Your task to perform on an android device: see tabs open on other devices in the chrome app Image 0: 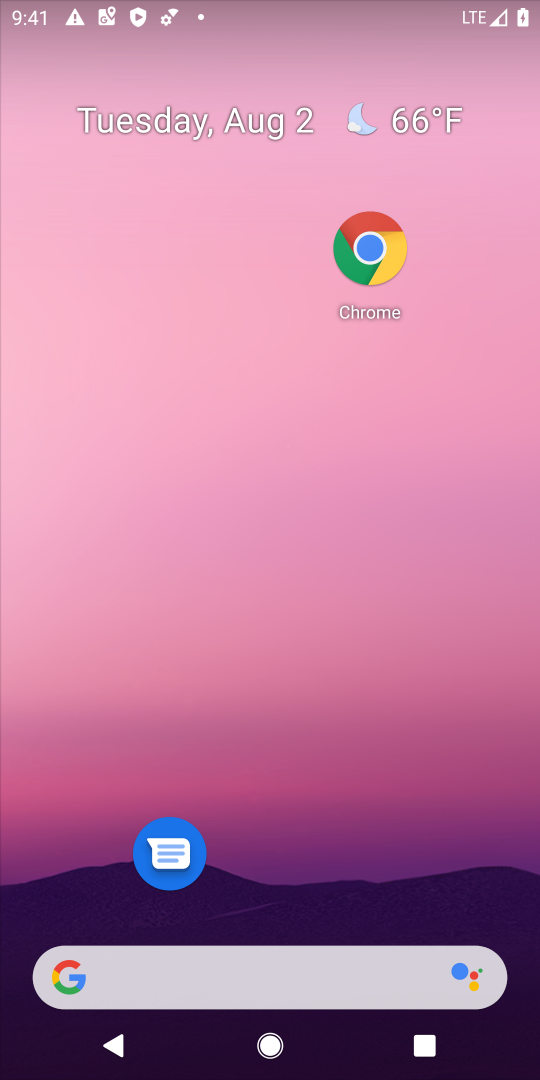
Step 0: drag from (276, 909) to (210, 50)
Your task to perform on an android device: see tabs open on other devices in the chrome app Image 1: 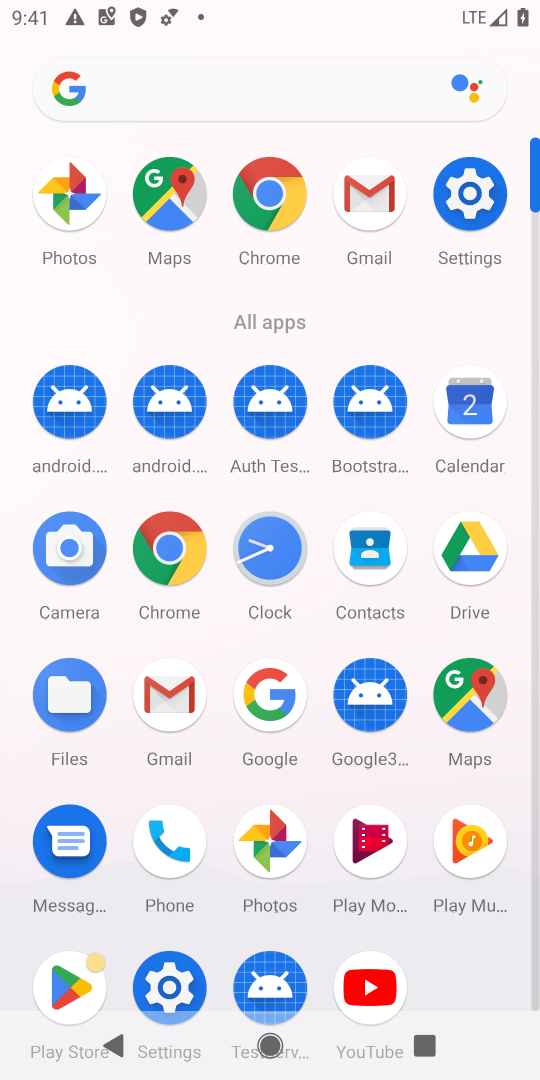
Step 1: click (281, 165)
Your task to perform on an android device: see tabs open on other devices in the chrome app Image 2: 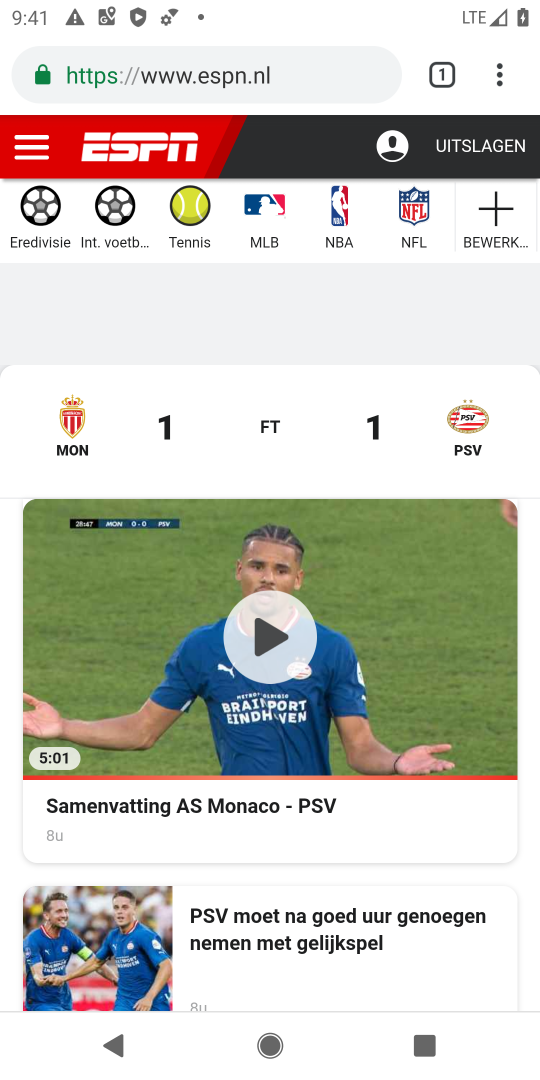
Step 2: click (451, 76)
Your task to perform on an android device: see tabs open on other devices in the chrome app Image 3: 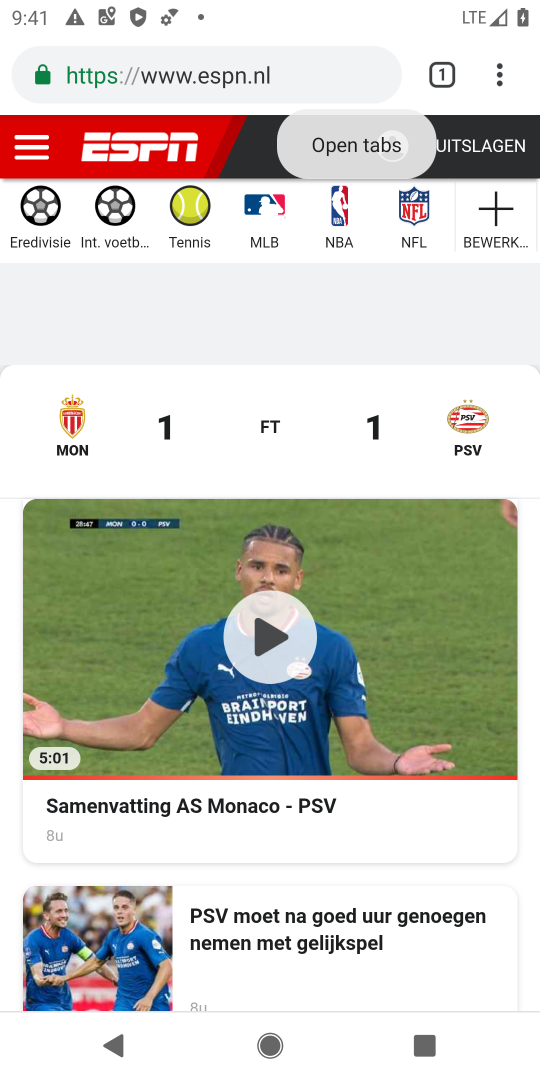
Step 3: click (434, 75)
Your task to perform on an android device: see tabs open on other devices in the chrome app Image 4: 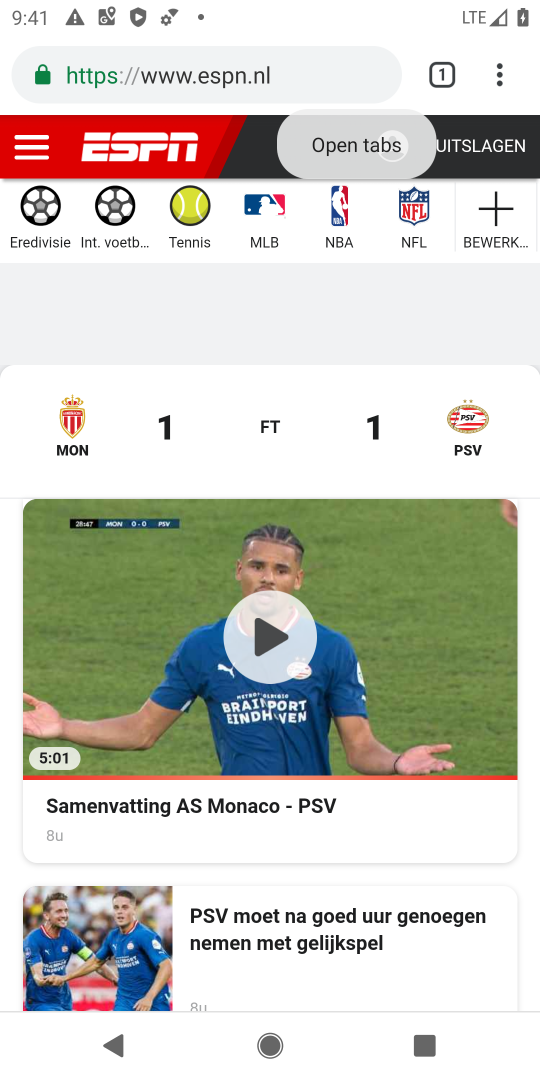
Step 4: click (500, 76)
Your task to perform on an android device: see tabs open on other devices in the chrome app Image 5: 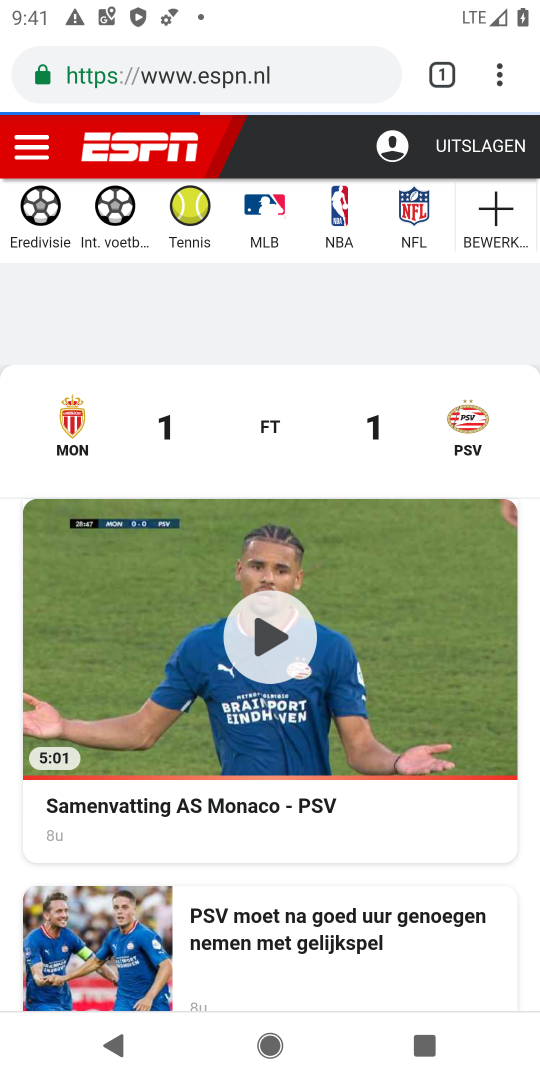
Step 5: task complete